Your task to perform on an android device: Search for seafood restaurants on Google Maps Image 0: 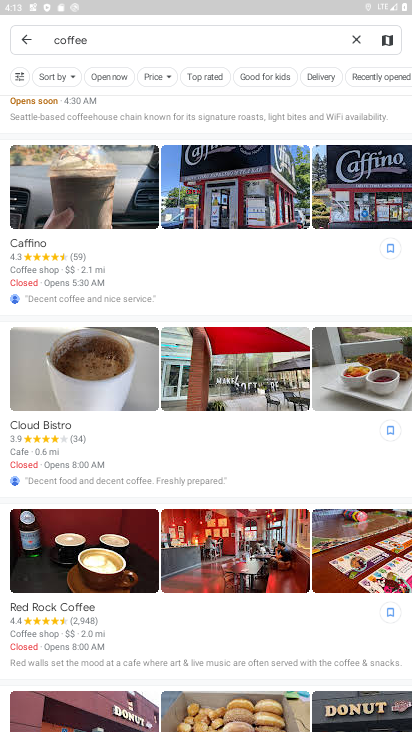
Step 0: click (352, 36)
Your task to perform on an android device: Search for seafood restaurants on Google Maps Image 1: 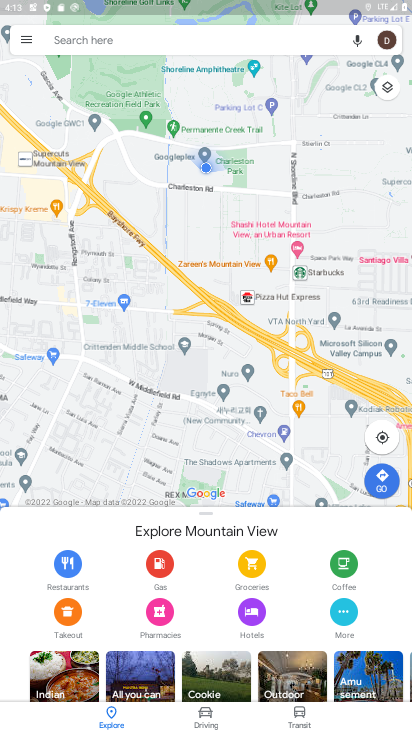
Step 1: click (104, 43)
Your task to perform on an android device: Search for seafood restaurants on Google Maps Image 2: 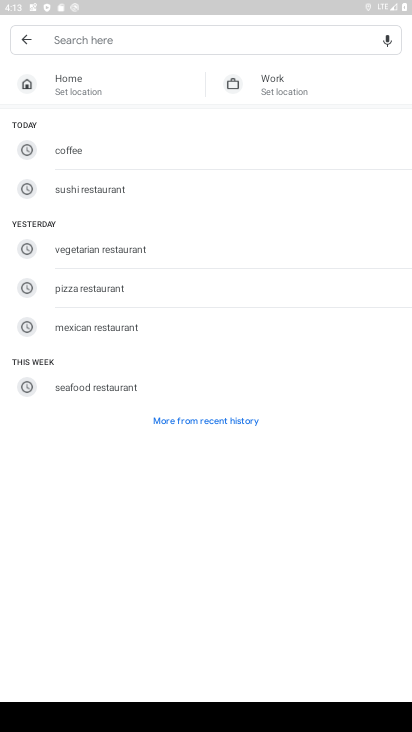
Step 2: click (92, 383)
Your task to perform on an android device: Search for seafood restaurants on Google Maps Image 3: 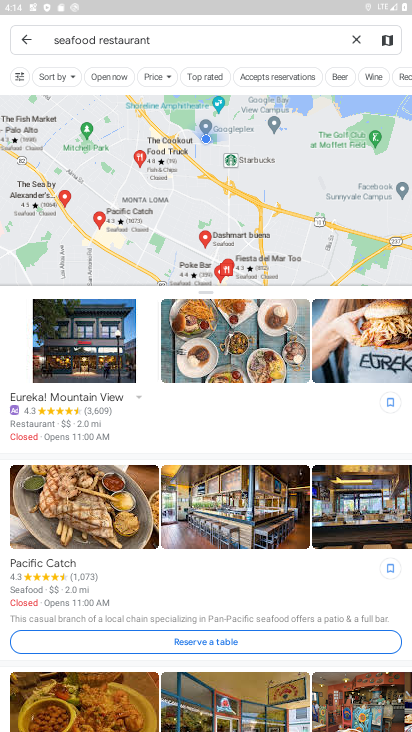
Step 3: click (188, 118)
Your task to perform on an android device: Search for seafood restaurants on Google Maps Image 4: 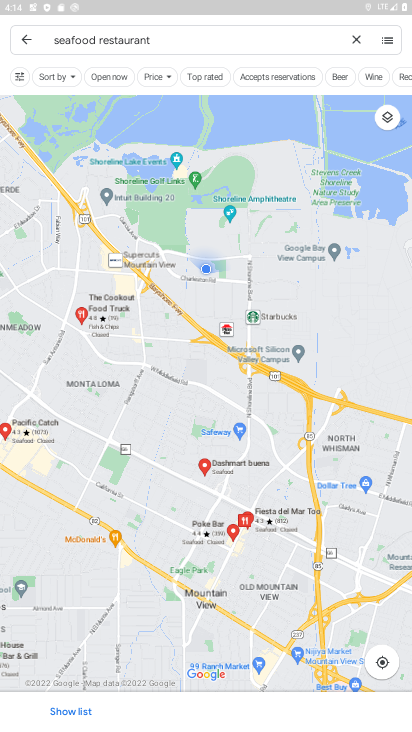
Step 4: drag from (189, 506) to (197, 177)
Your task to perform on an android device: Search for seafood restaurants on Google Maps Image 5: 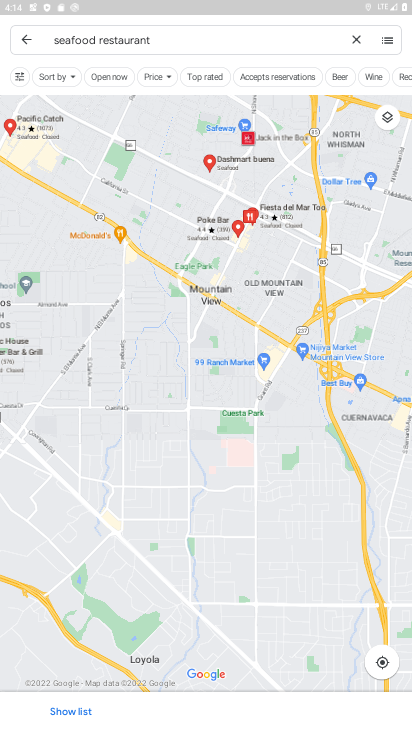
Step 5: click (175, 38)
Your task to perform on an android device: Search for seafood restaurants on Google Maps Image 6: 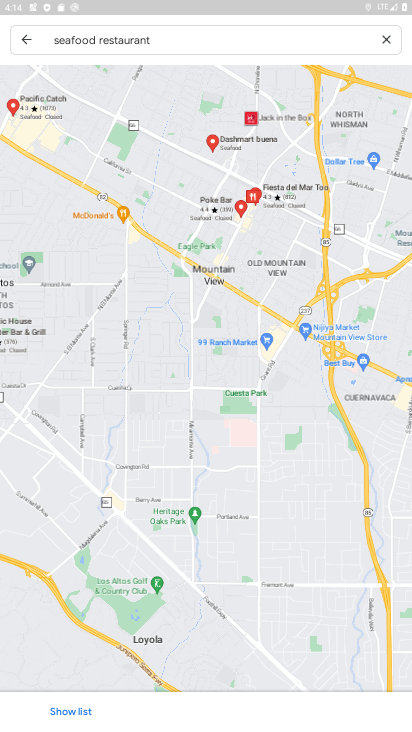
Step 6: click (167, 36)
Your task to perform on an android device: Search for seafood restaurants on Google Maps Image 7: 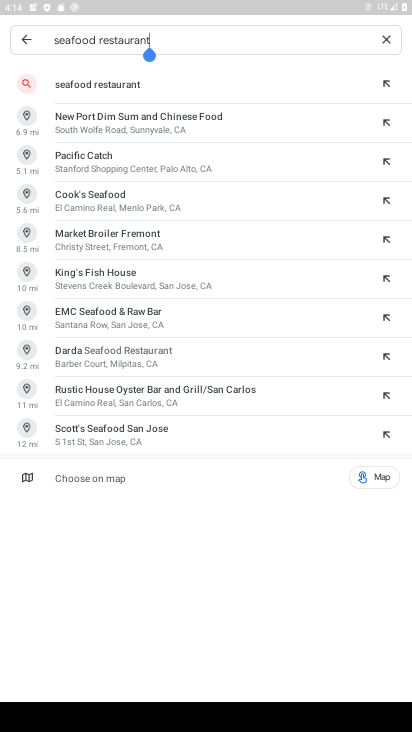
Step 7: click (123, 88)
Your task to perform on an android device: Search for seafood restaurants on Google Maps Image 8: 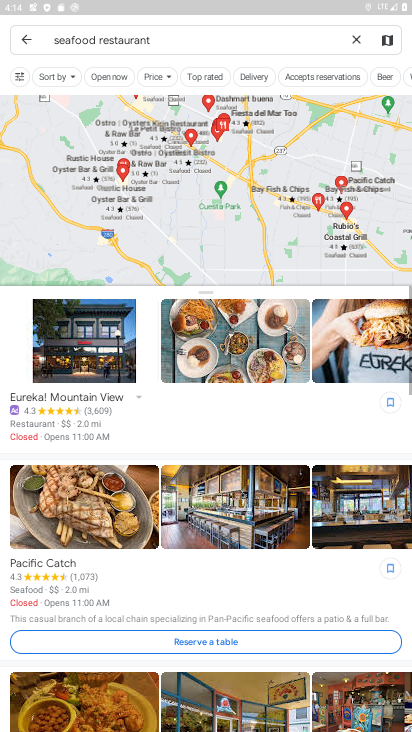
Step 8: task complete